Your task to perform on an android device: turn on priority inbox in the gmail app Image 0: 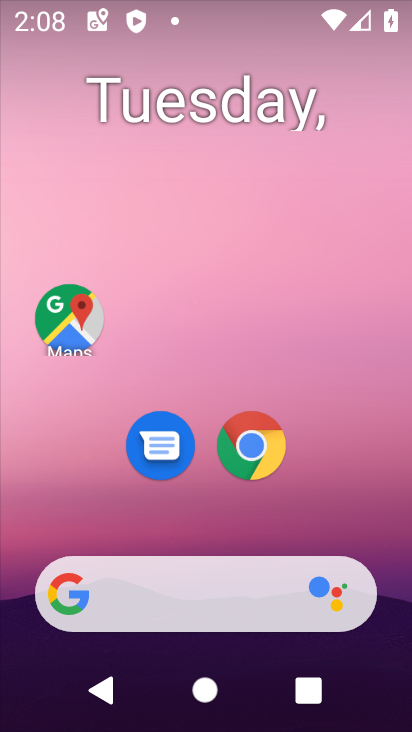
Step 0: drag from (170, 541) to (262, 62)
Your task to perform on an android device: turn on priority inbox in the gmail app Image 1: 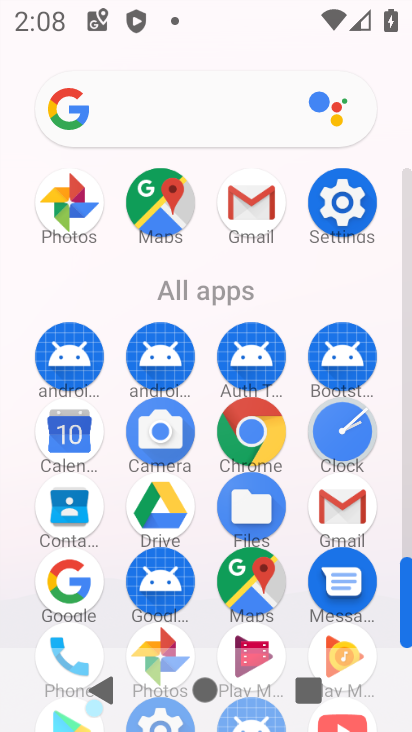
Step 1: click (260, 198)
Your task to perform on an android device: turn on priority inbox in the gmail app Image 2: 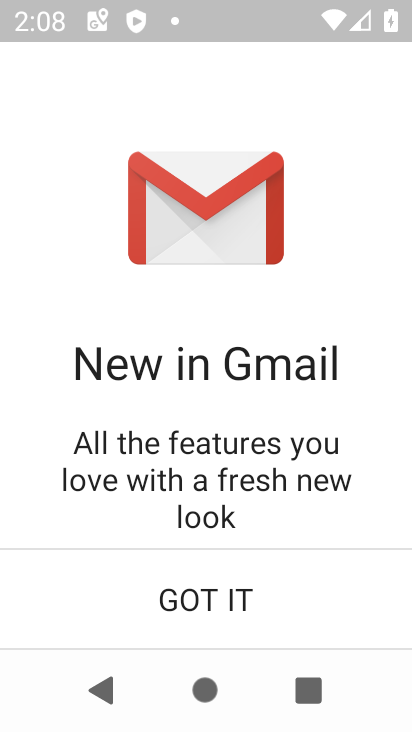
Step 2: click (245, 617)
Your task to perform on an android device: turn on priority inbox in the gmail app Image 3: 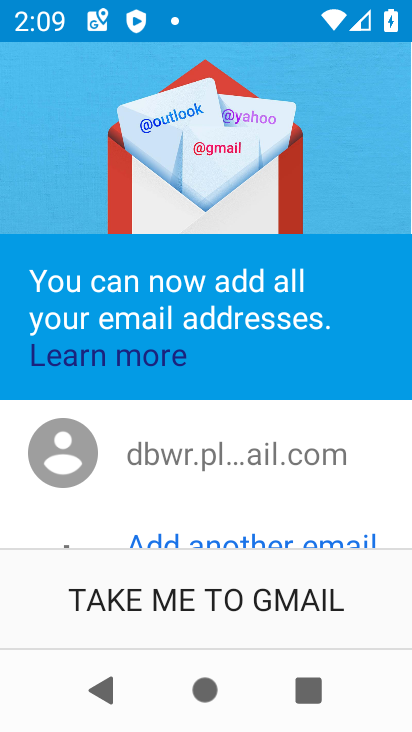
Step 3: click (287, 621)
Your task to perform on an android device: turn on priority inbox in the gmail app Image 4: 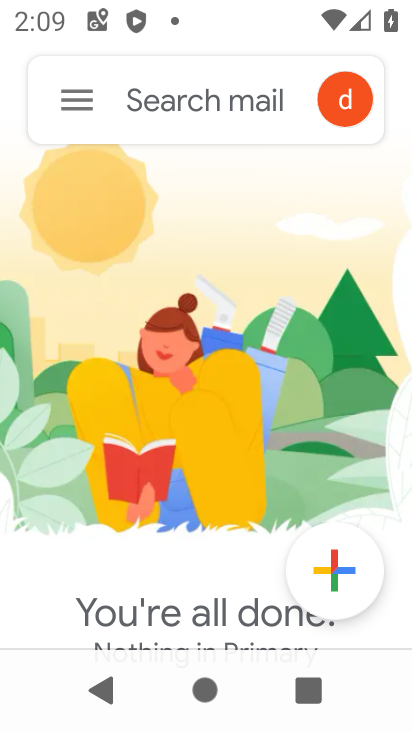
Step 4: click (82, 107)
Your task to perform on an android device: turn on priority inbox in the gmail app Image 5: 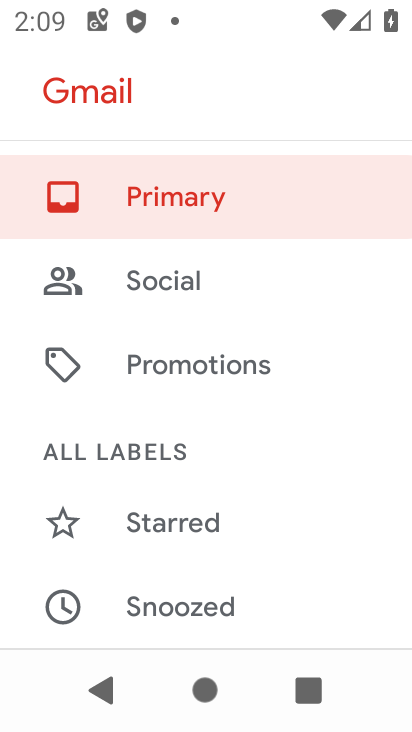
Step 5: drag from (181, 568) to (178, 303)
Your task to perform on an android device: turn on priority inbox in the gmail app Image 6: 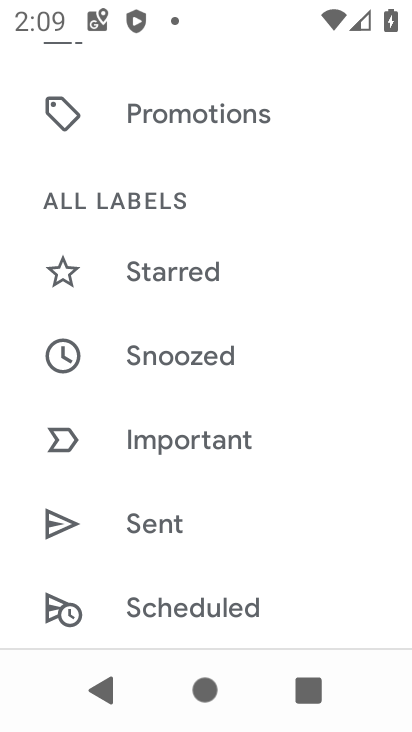
Step 6: drag from (173, 626) to (175, 221)
Your task to perform on an android device: turn on priority inbox in the gmail app Image 7: 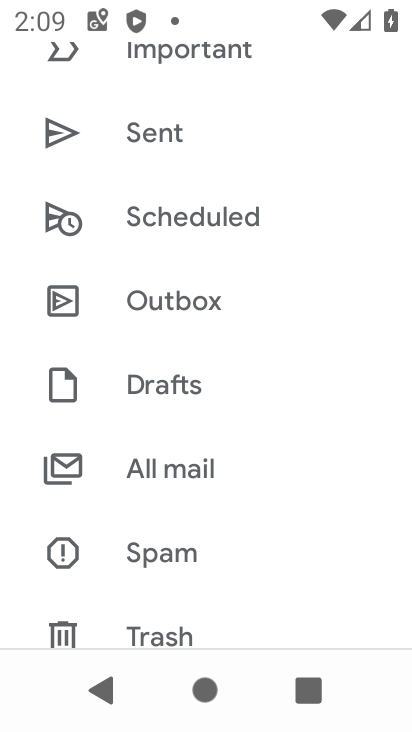
Step 7: drag from (174, 208) to (162, 436)
Your task to perform on an android device: turn on priority inbox in the gmail app Image 8: 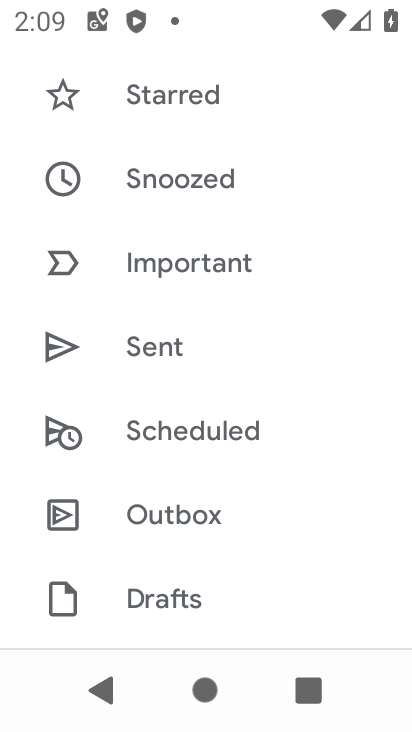
Step 8: drag from (232, 123) to (202, 528)
Your task to perform on an android device: turn on priority inbox in the gmail app Image 9: 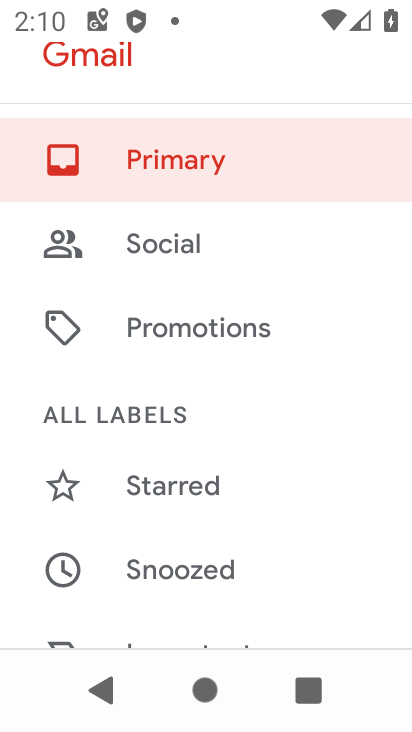
Step 9: drag from (180, 541) to (225, 226)
Your task to perform on an android device: turn on priority inbox in the gmail app Image 10: 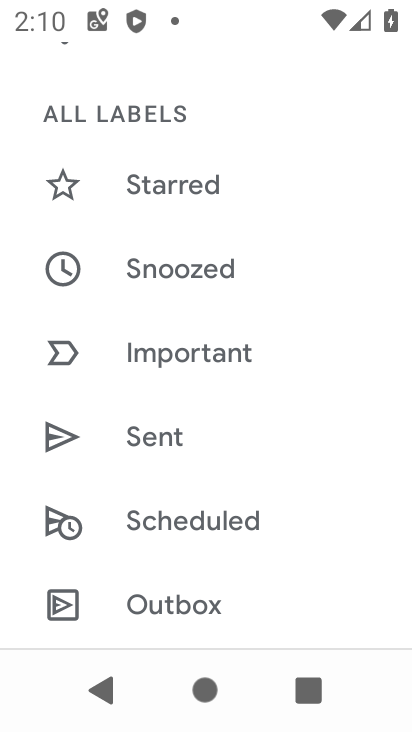
Step 10: drag from (107, 587) to (122, 300)
Your task to perform on an android device: turn on priority inbox in the gmail app Image 11: 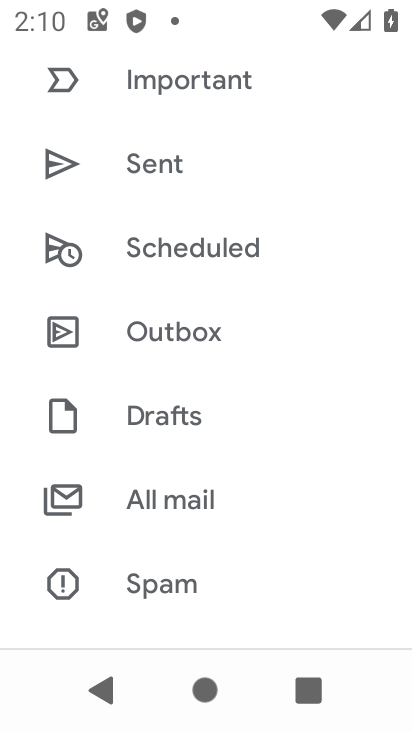
Step 11: drag from (180, 576) to (192, 167)
Your task to perform on an android device: turn on priority inbox in the gmail app Image 12: 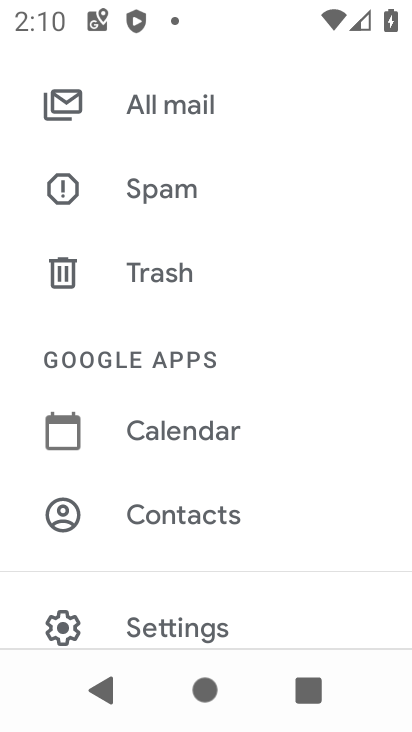
Step 12: drag from (92, 560) to (177, 23)
Your task to perform on an android device: turn on priority inbox in the gmail app Image 13: 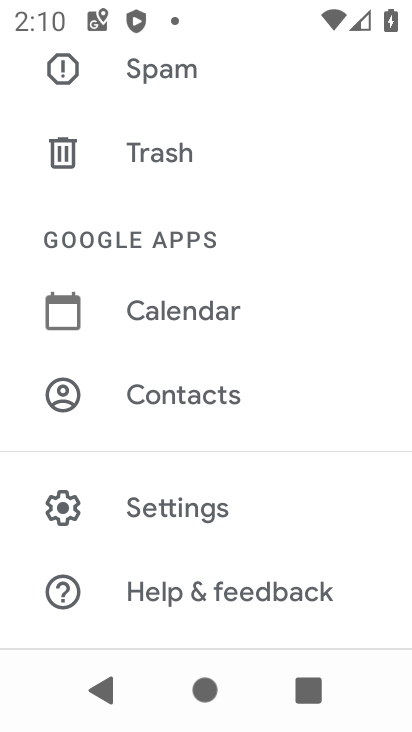
Step 13: click (100, 516)
Your task to perform on an android device: turn on priority inbox in the gmail app Image 14: 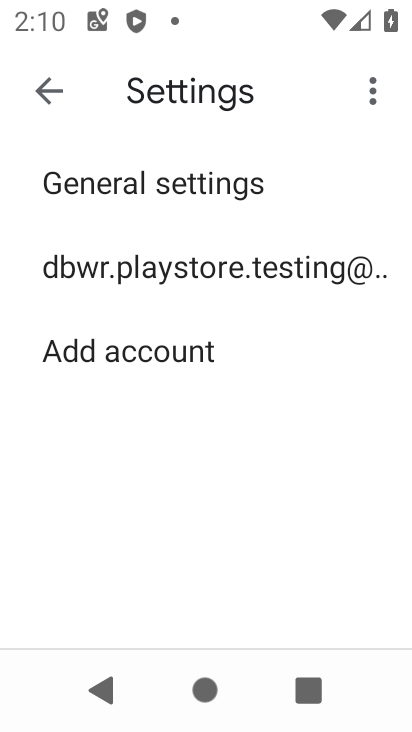
Step 14: click (203, 284)
Your task to perform on an android device: turn on priority inbox in the gmail app Image 15: 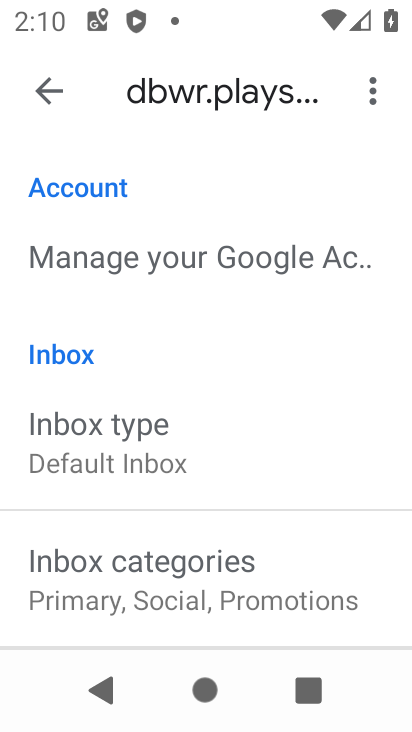
Step 15: click (102, 486)
Your task to perform on an android device: turn on priority inbox in the gmail app Image 16: 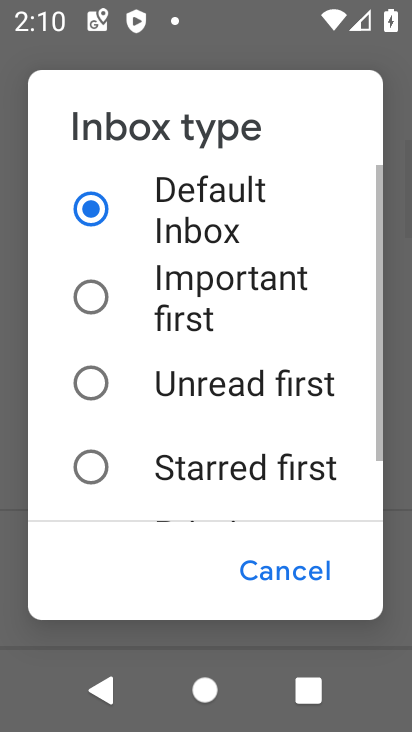
Step 16: drag from (139, 476) to (217, 114)
Your task to perform on an android device: turn on priority inbox in the gmail app Image 17: 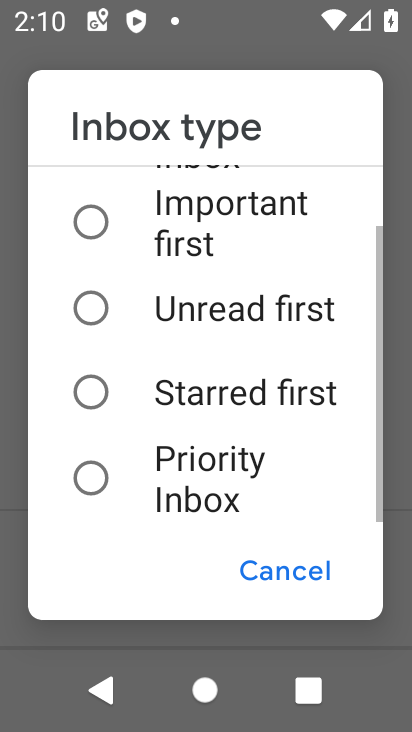
Step 17: click (105, 489)
Your task to perform on an android device: turn on priority inbox in the gmail app Image 18: 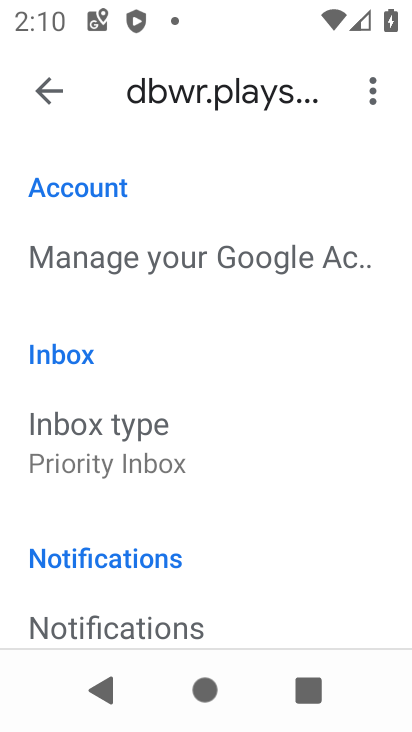
Step 18: task complete